Your task to perform on an android device: toggle wifi Image 0: 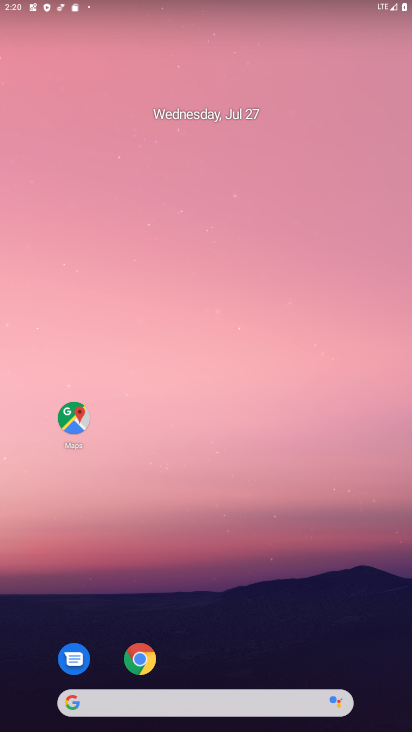
Step 0: drag from (206, 722) to (169, 186)
Your task to perform on an android device: toggle wifi Image 1: 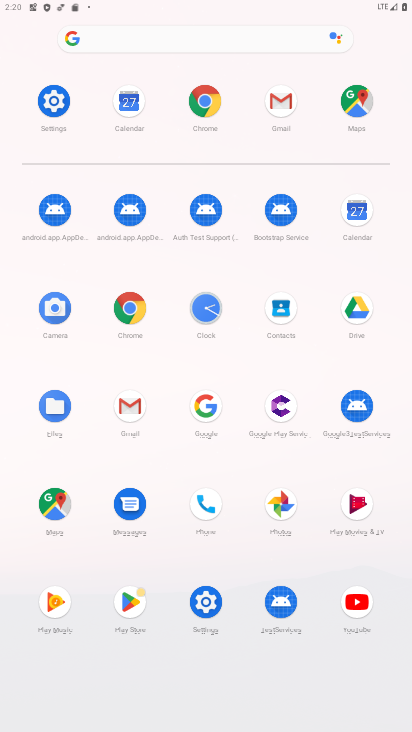
Step 1: click (44, 109)
Your task to perform on an android device: toggle wifi Image 2: 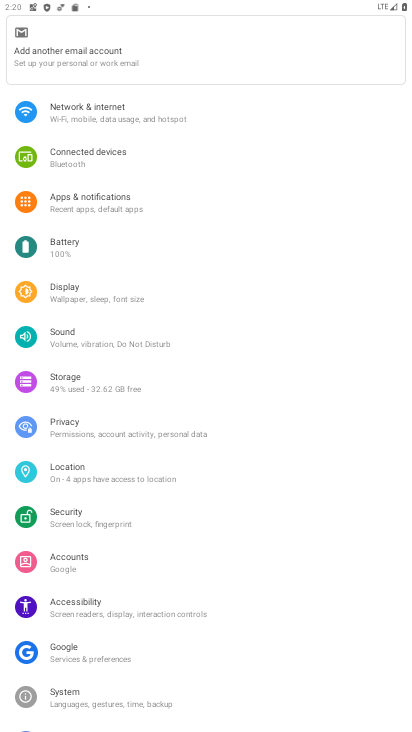
Step 2: click (77, 106)
Your task to perform on an android device: toggle wifi Image 3: 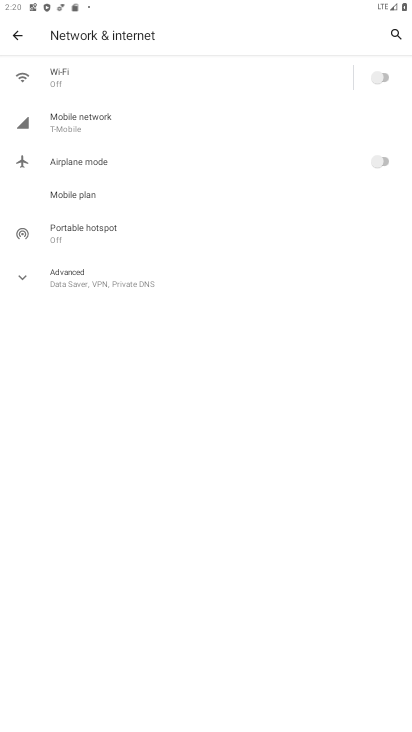
Step 3: click (384, 71)
Your task to perform on an android device: toggle wifi Image 4: 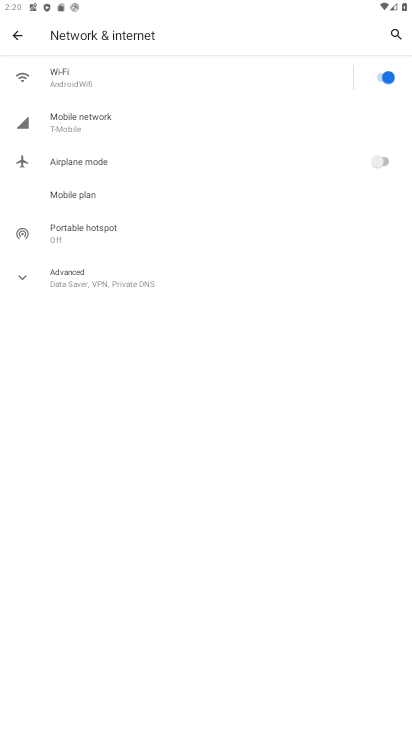
Step 4: task complete